Your task to perform on an android device: Open sound settings Image 0: 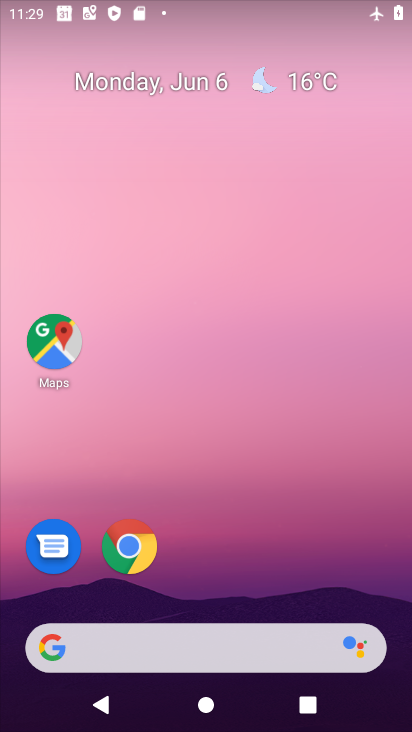
Step 0: drag from (260, 541) to (205, 105)
Your task to perform on an android device: Open sound settings Image 1: 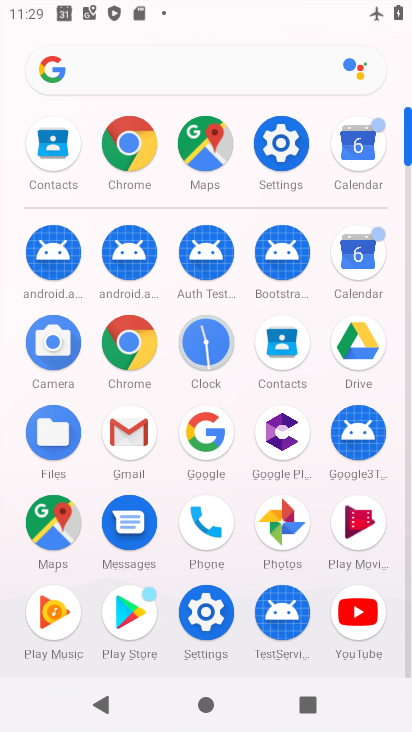
Step 1: click (285, 131)
Your task to perform on an android device: Open sound settings Image 2: 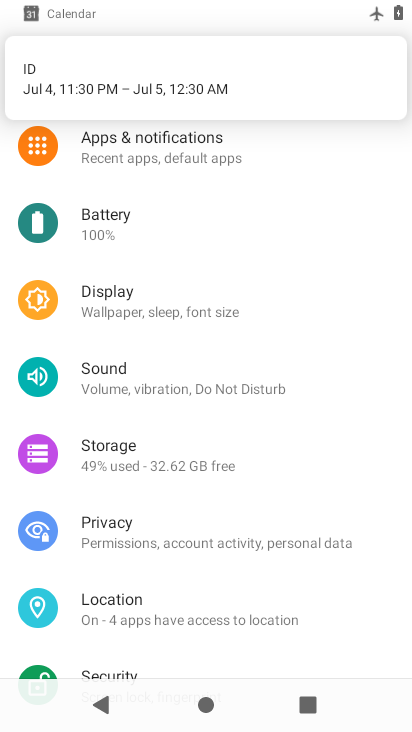
Step 2: click (212, 387)
Your task to perform on an android device: Open sound settings Image 3: 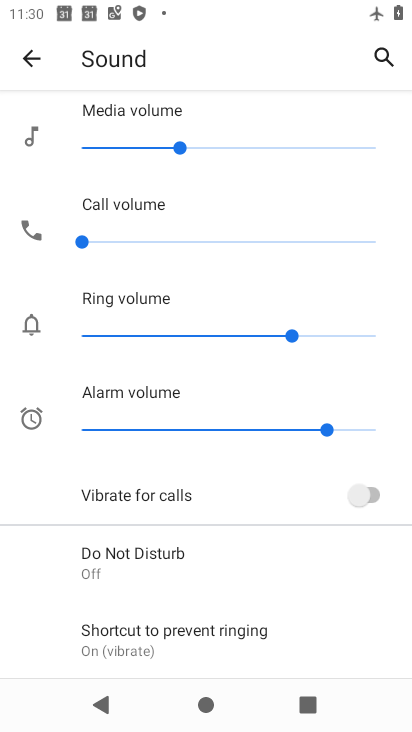
Step 3: task complete